Your task to perform on an android device: add a label to a message in the gmail app Image 0: 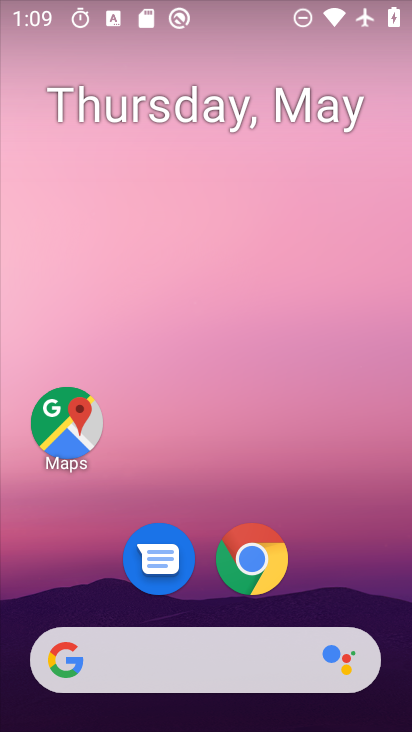
Step 0: drag from (241, 615) to (213, 178)
Your task to perform on an android device: add a label to a message in the gmail app Image 1: 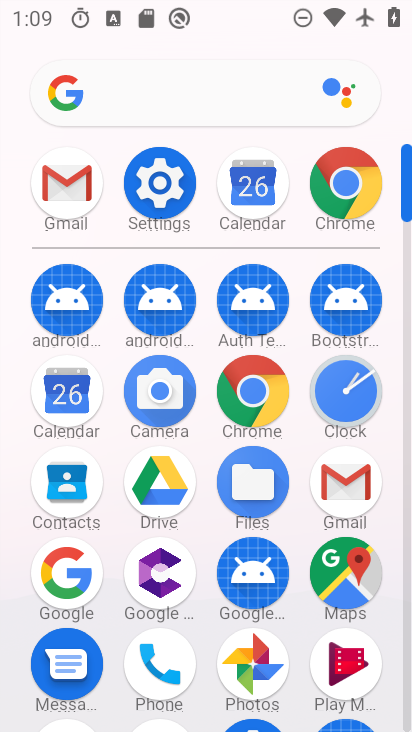
Step 1: click (352, 498)
Your task to perform on an android device: add a label to a message in the gmail app Image 2: 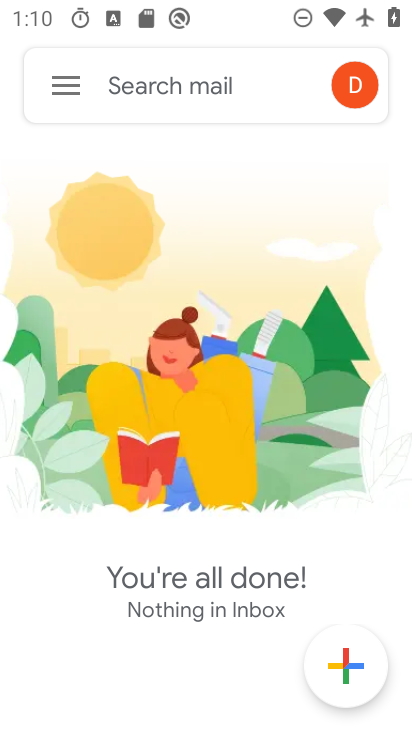
Step 2: click (68, 94)
Your task to perform on an android device: add a label to a message in the gmail app Image 3: 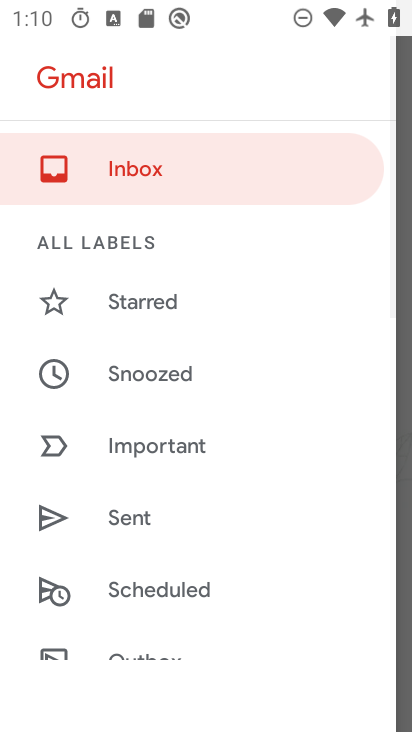
Step 3: drag from (136, 546) to (192, 270)
Your task to perform on an android device: add a label to a message in the gmail app Image 4: 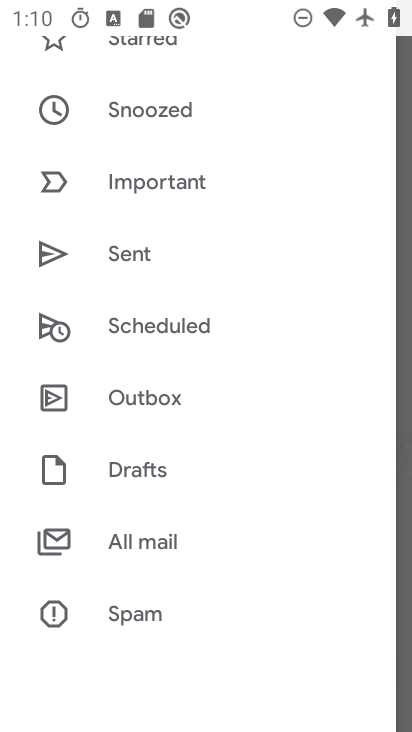
Step 4: click (155, 550)
Your task to perform on an android device: add a label to a message in the gmail app Image 5: 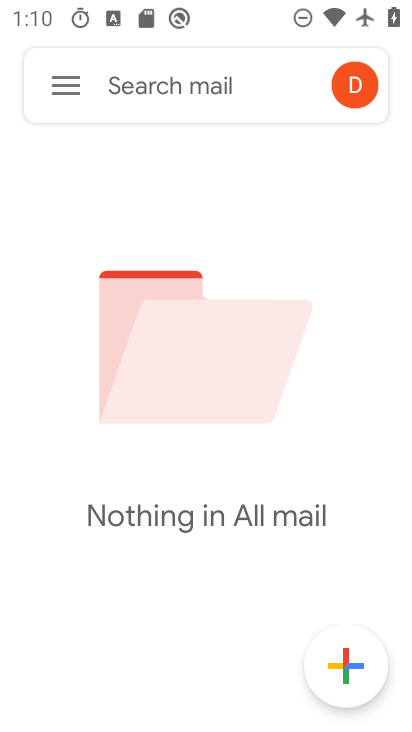
Step 5: press home button
Your task to perform on an android device: add a label to a message in the gmail app Image 6: 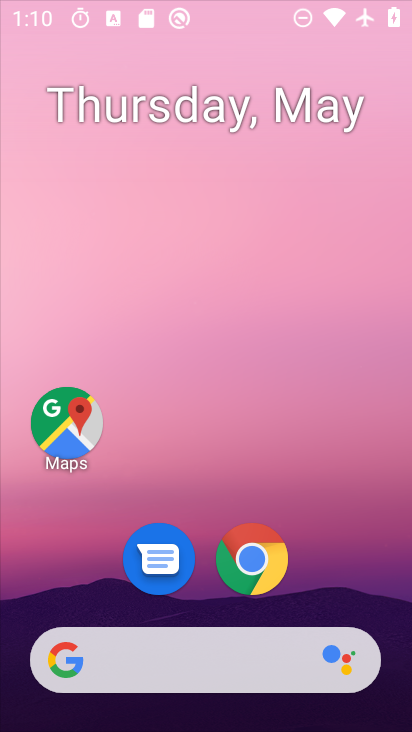
Step 6: drag from (242, 653) to (239, 271)
Your task to perform on an android device: add a label to a message in the gmail app Image 7: 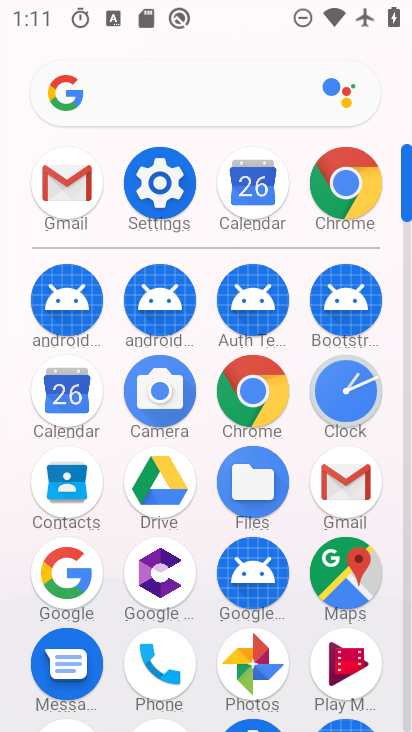
Step 7: click (373, 497)
Your task to perform on an android device: add a label to a message in the gmail app Image 8: 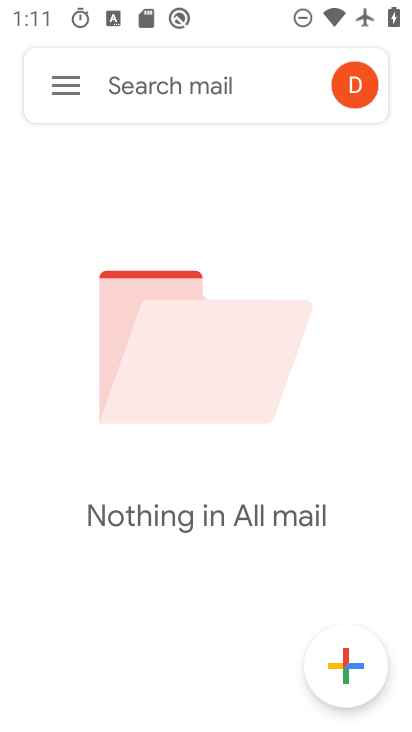
Step 8: click (60, 93)
Your task to perform on an android device: add a label to a message in the gmail app Image 9: 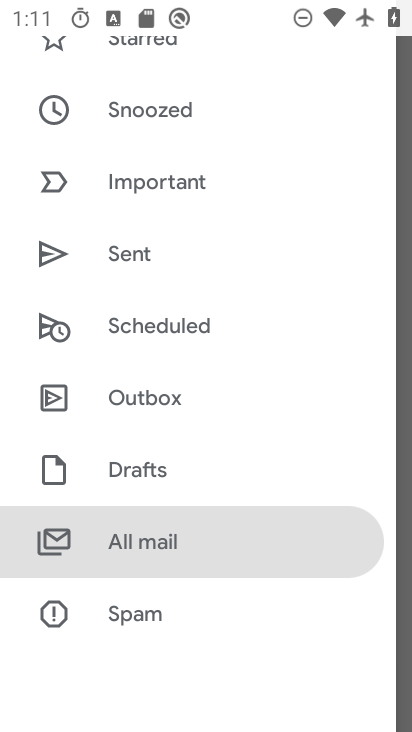
Step 9: task complete